Your task to perform on an android device: Is it going to rain today? Image 0: 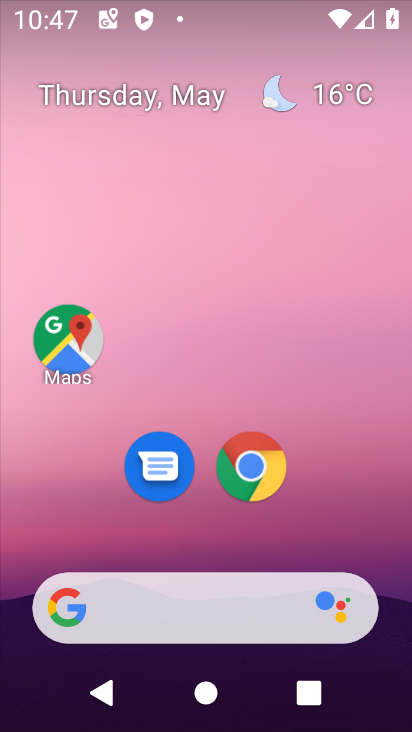
Step 0: click (264, 452)
Your task to perform on an android device: Is it going to rain today? Image 1: 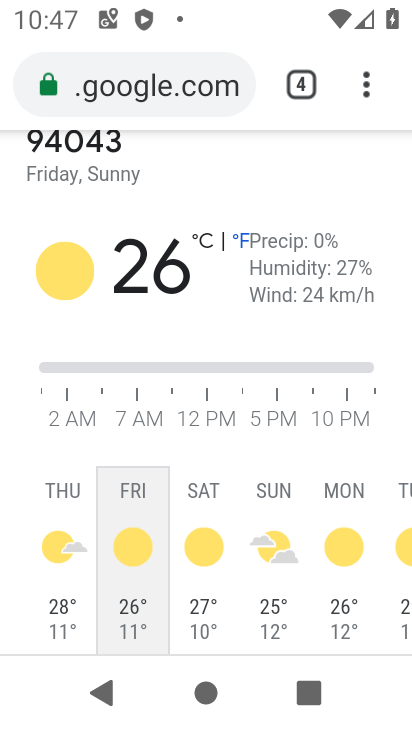
Step 1: click (385, 73)
Your task to perform on an android device: Is it going to rain today? Image 2: 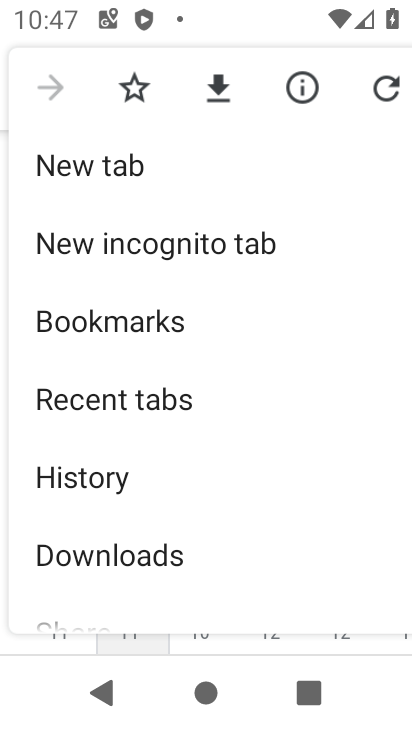
Step 2: click (94, 160)
Your task to perform on an android device: Is it going to rain today? Image 3: 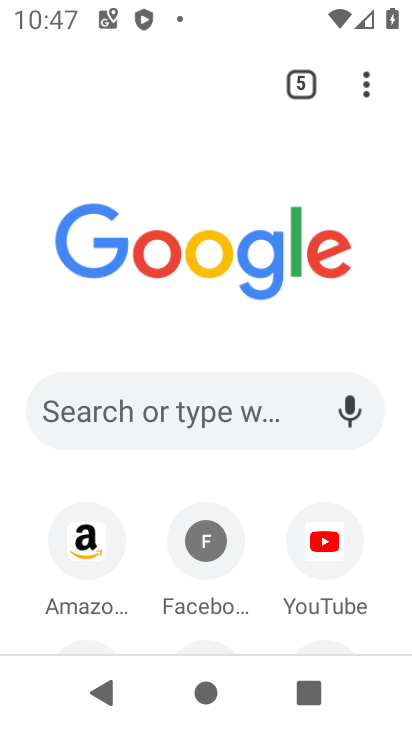
Step 3: click (191, 431)
Your task to perform on an android device: Is it going to rain today? Image 4: 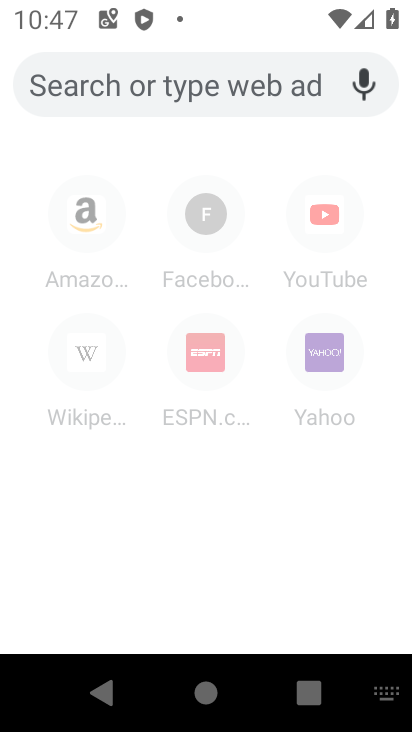
Step 4: type "Is it going to rain today?"
Your task to perform on an android device: Is it going to rain today? Image 5: 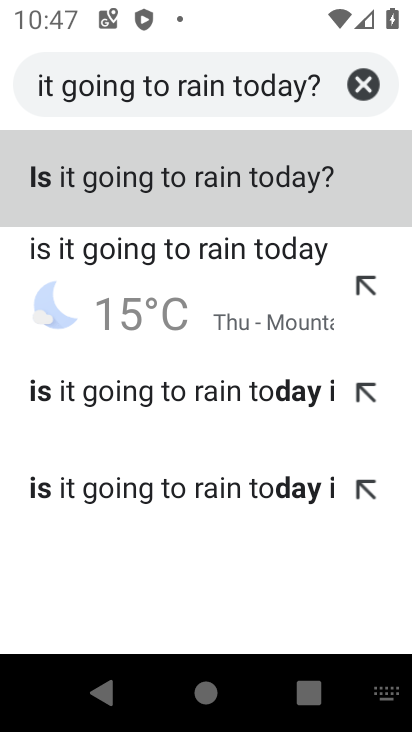
Step 5: click (172, 168)
Your task to perform on an android device: Is it going to rain today? Image 6: 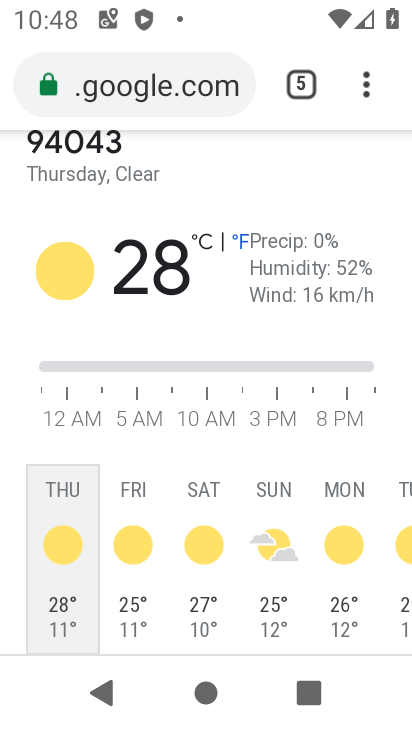
Step 6: task complete